Your task to perform on an android device: Open wifi settings Image 0: 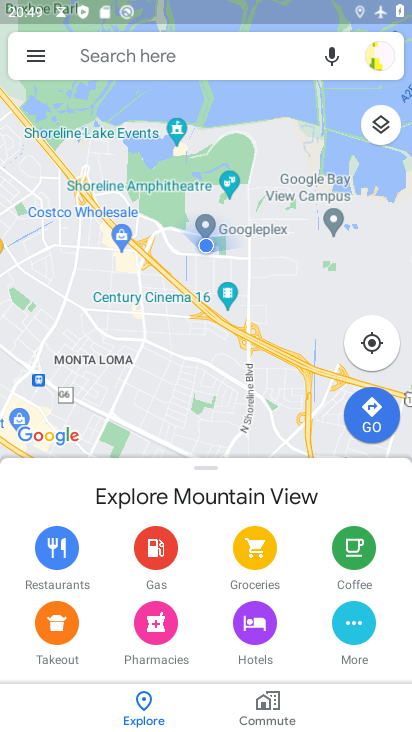
Step 0: press back button
Your task to perform on an android device: Open wifi settings Image 1: 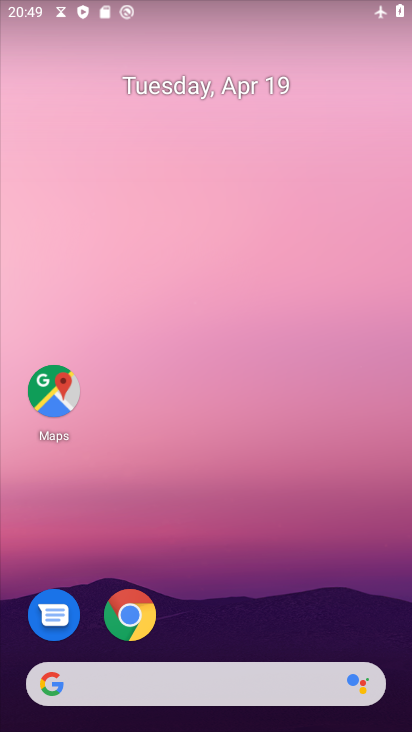
Step 1: drag from (386, 630) to (206, 13)
Your task to perform on an android device: Open wifi settings Image 2: 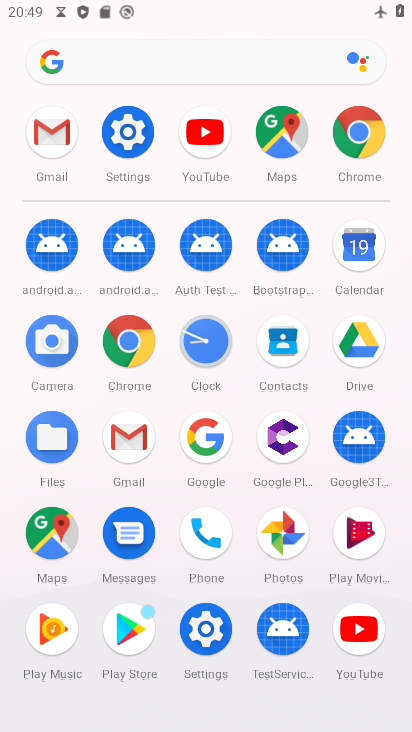
Step 2: click (125, 130)
Your task to perform on an android device: Open wifi settings Image 3: 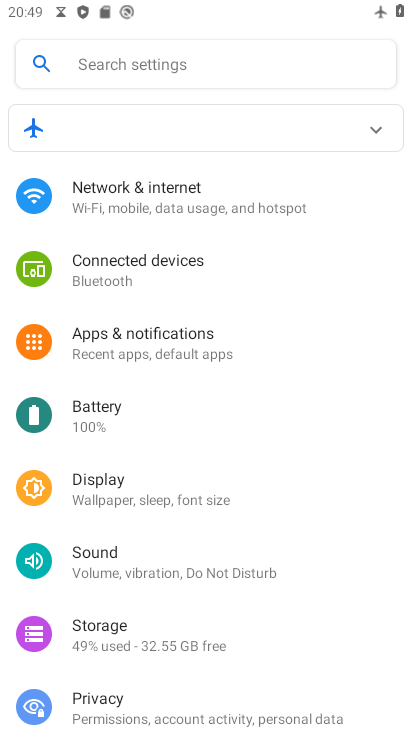
Step 3: click (153, 183)
Your task to perform on an android device: Open wifi settings Image 4: 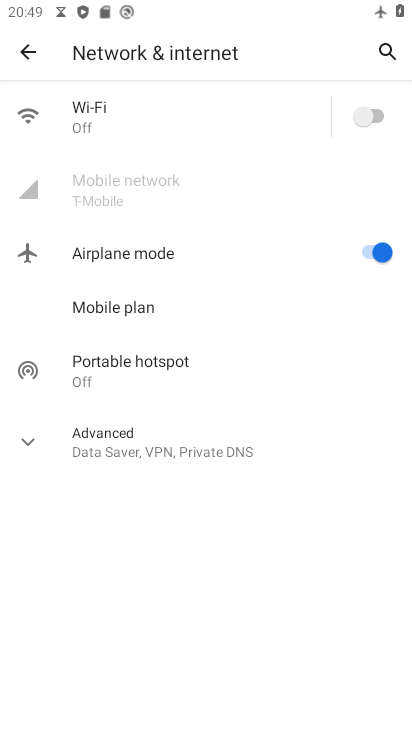
Step 4: click (127, 110)
Your task to perform on an android device: Open wifi settings Image 5: 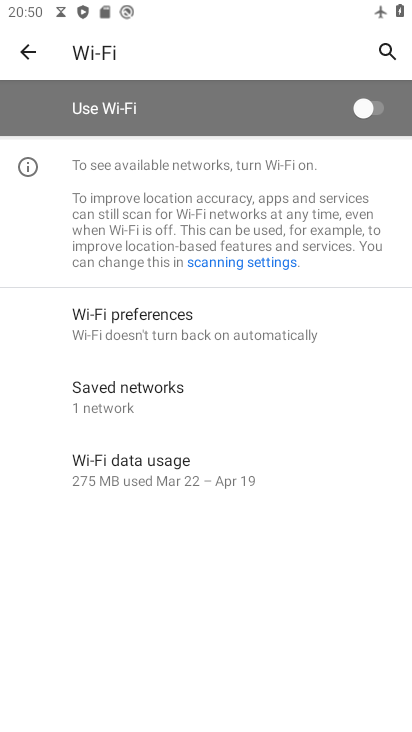
Step 5: task complete